Your task to perform on an android device: turn on translation in the chrome app Image 0: 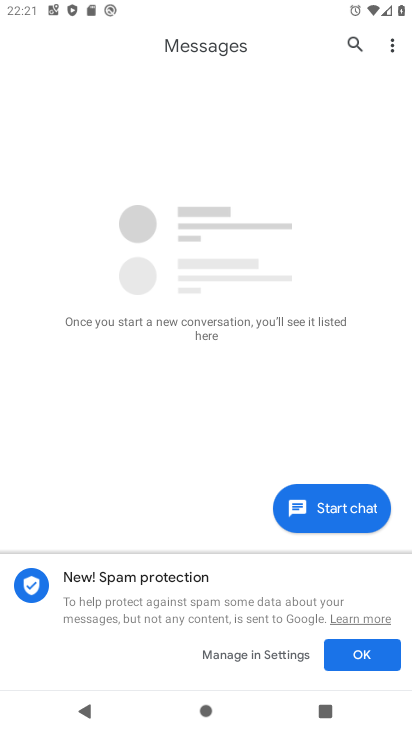
Step 0: press home button
Your task to perform on an android device: turn on translation in the chrome app Image 1: 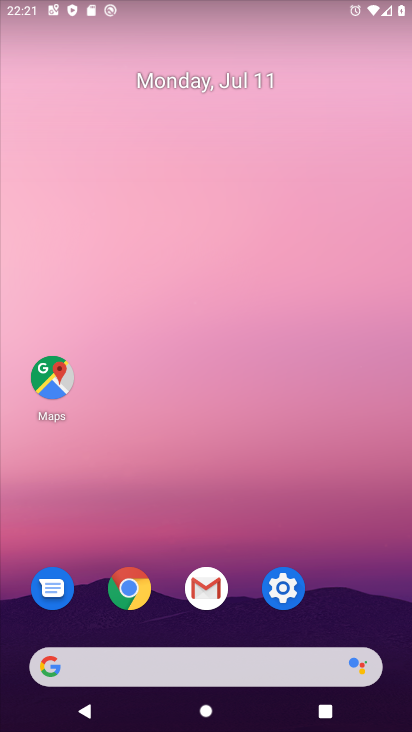
Step 1: click (113, 592)
Your task to perform on an android device: turn on translation in the chrome app Image 2: 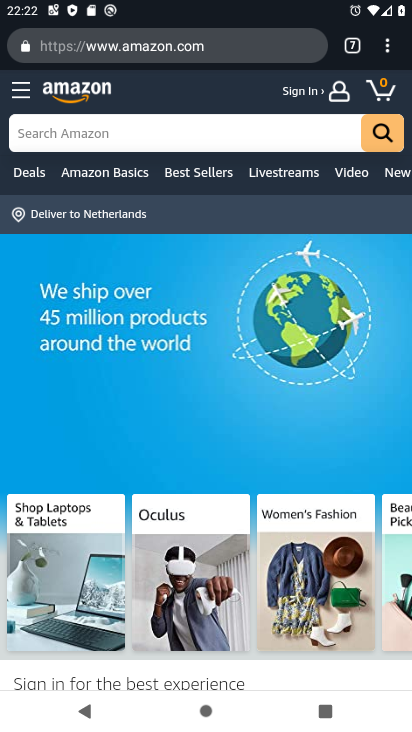
Step 2: click (377, 43)
Your task to perform on an android device: turn on translation in the chrome app Image 3: 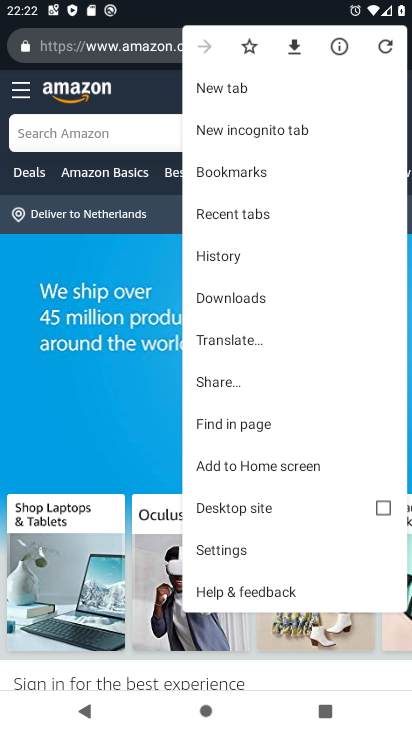
Step 3: click (236, 546)
Your task to perform on an android device: turn on translation in the chrome app Image 4: 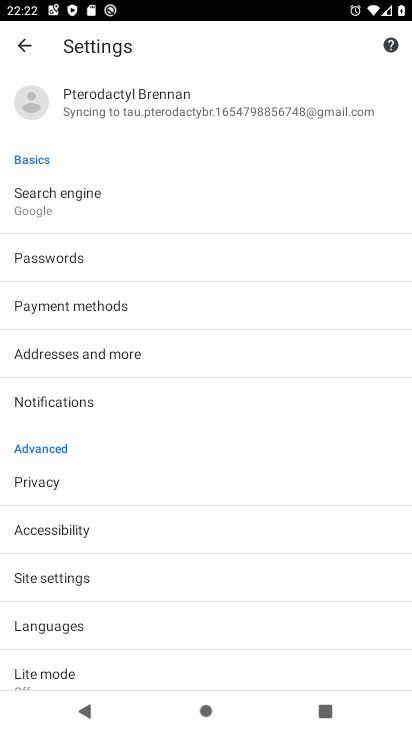
Step 4: click (71, 624)
Your task to perform on an android device: turn on translation in the chrome app Image 5: 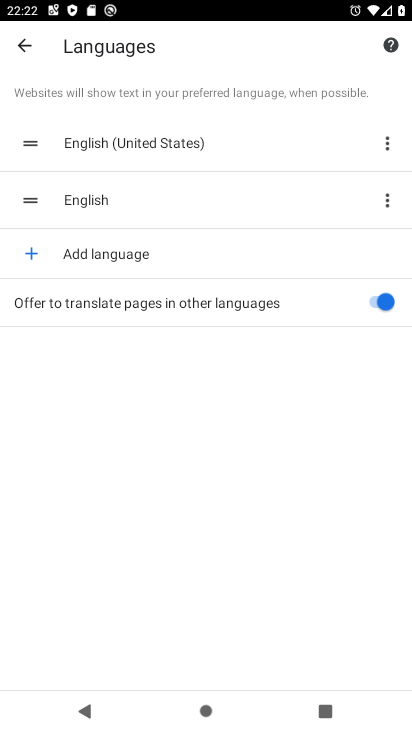
Step 5: click (387, 294)
Your task to perform on an android device: turn on translation in the chrome app Image 6: 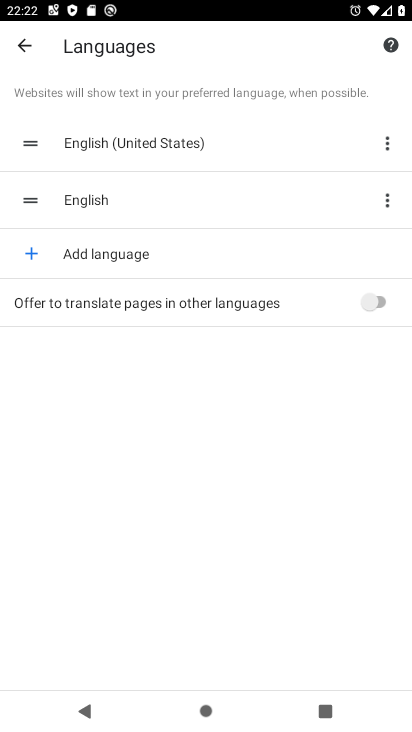
Step 6: click (387, 294)
Your task to perform on an android device: turn on translation in the chrome app Image 7: 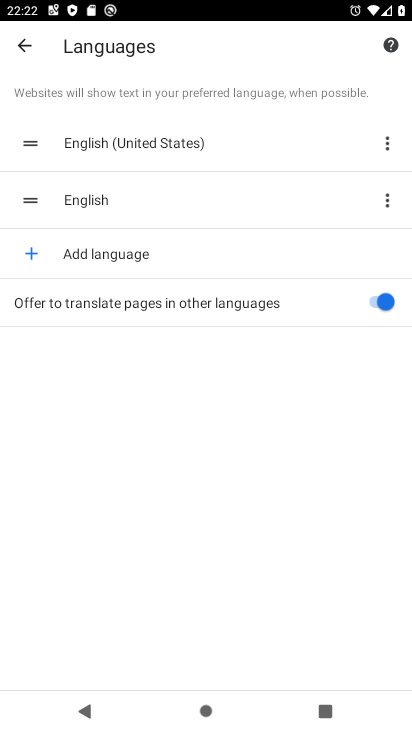
Step 7: task complete